Your task to perform on an android device: open wifi settings Image 0: 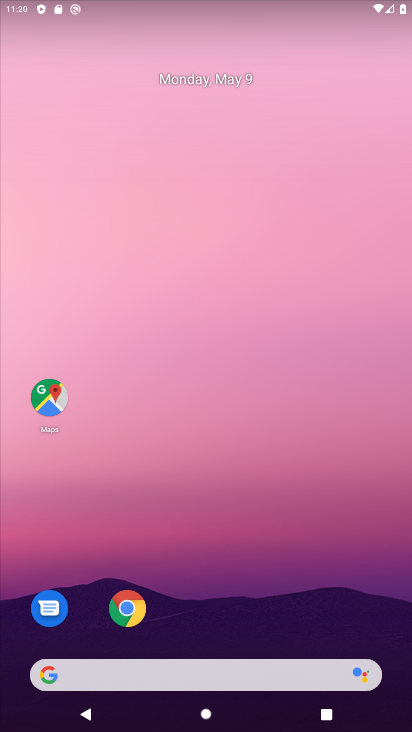
Step 0: drag from (33, 641) to (407, 75)
Your task to perform on an android device: open wifi settings Image 1: 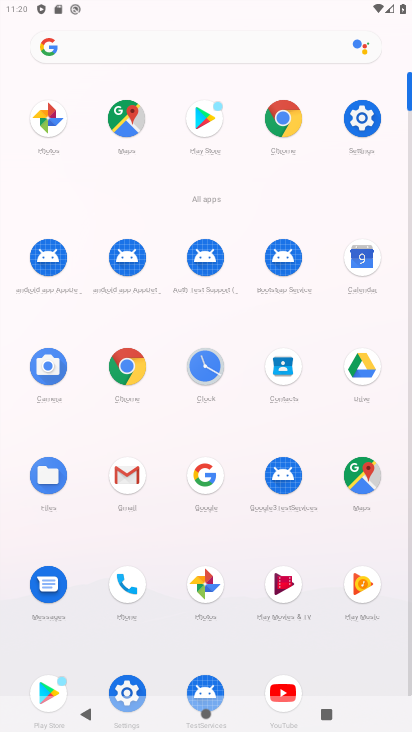
Step 1: click (359, 106)
Your task to perform on an android device: open wifi settings Image 2: 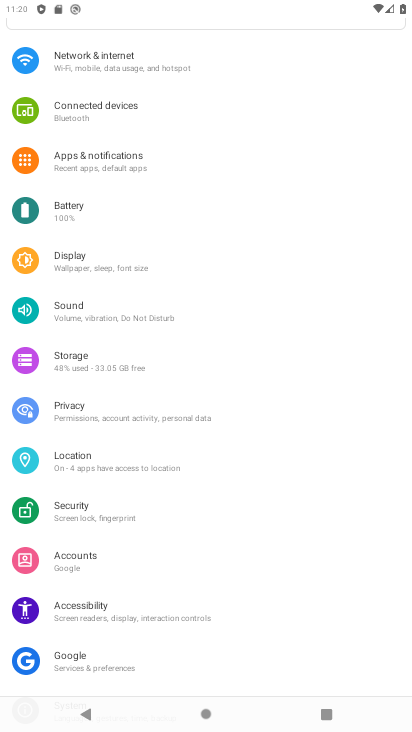
Step 2: click (130, 63)
Your task to perform on an android device: open wifi settings Image 3: 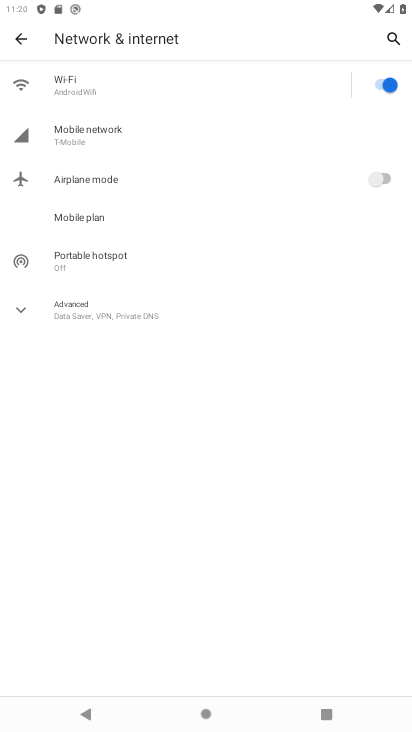
Step 3: click (130, 70)
Your task to perform on an android device: open wifi settings Image 4: 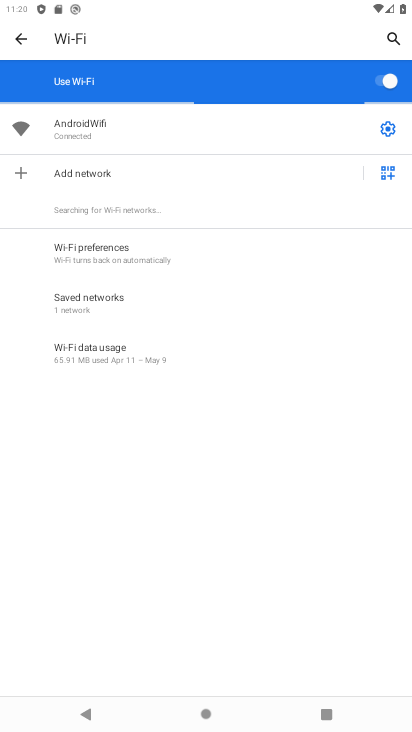
Step 4: click (392, 123)
Your task to perform on an android device: open wifi settings Image 5: 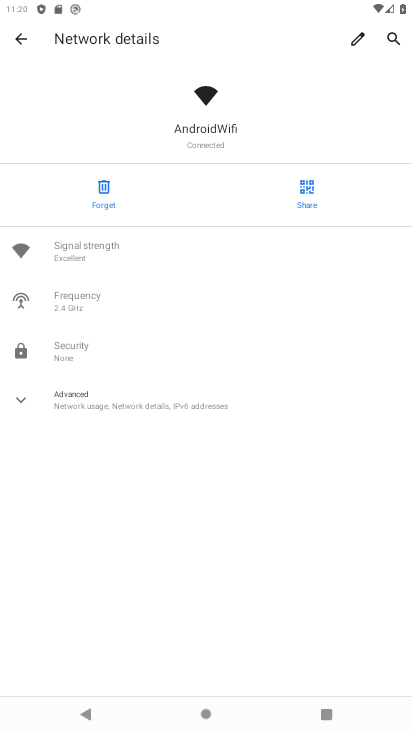
Step 5: task complete